Your task to perform on an android device: turn on improve location accuracy Image 0: 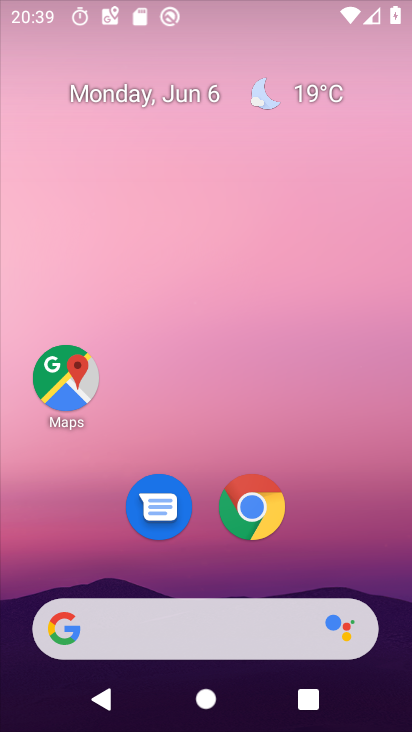
Step 0: press home button
Your task to perform on an android device: turn on improve location accuracy Image 1: 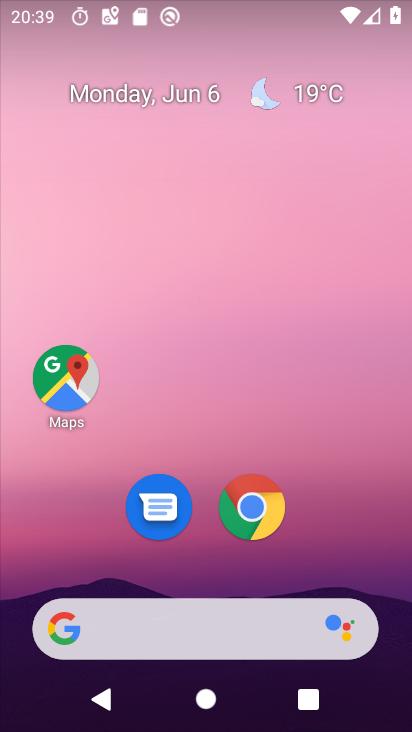
Step 1: drag from (409, 587) to (295, 32)
Your task to perform on an android device: turn on improve location accuracy Image 2: 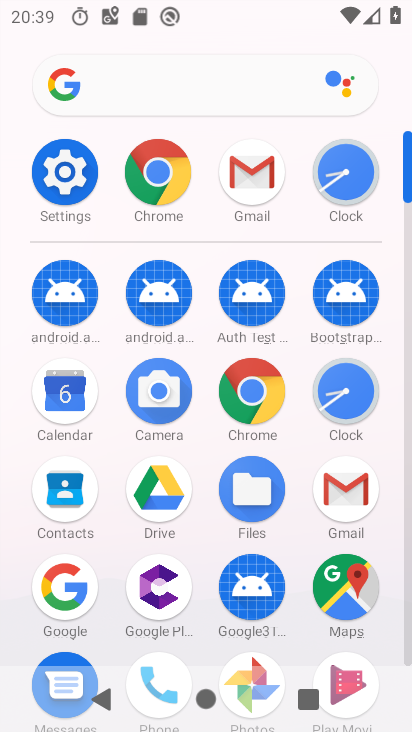
Step 2: drag from (183, 612) to (195, 471)
Your task to perform on an android device: turn on improve location accuracy Image 3: 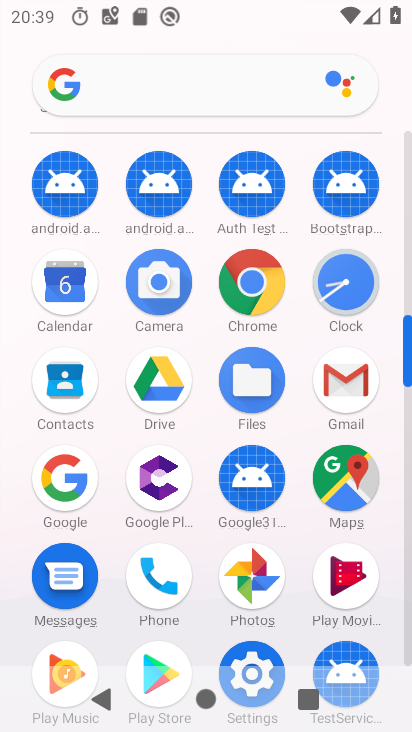
Step 3: click (253, 650)
Your task to perform on an android device: turn on improve location accuracy Image 4: 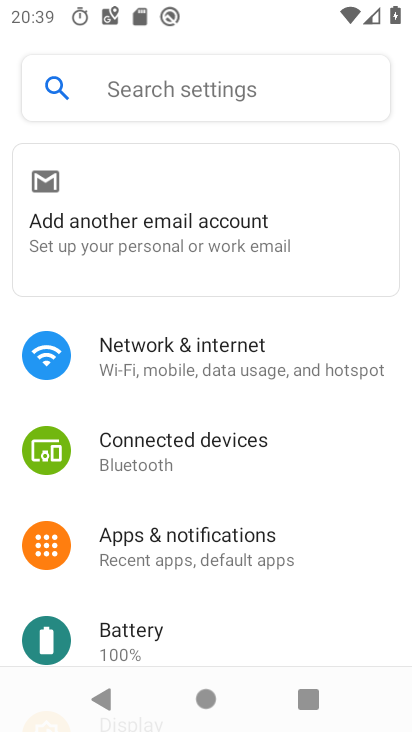
Step 4: drag from (241, 612) to (199, 0)
Your task to perform on an android device: turn on improve location accuracy Image 5: 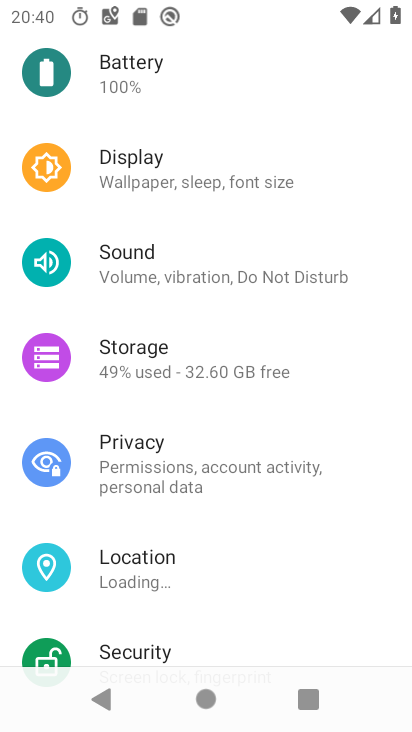
Step 5: click (141, 562)
Your task to perform on an android device: turn on improve location accuracy Image 6: 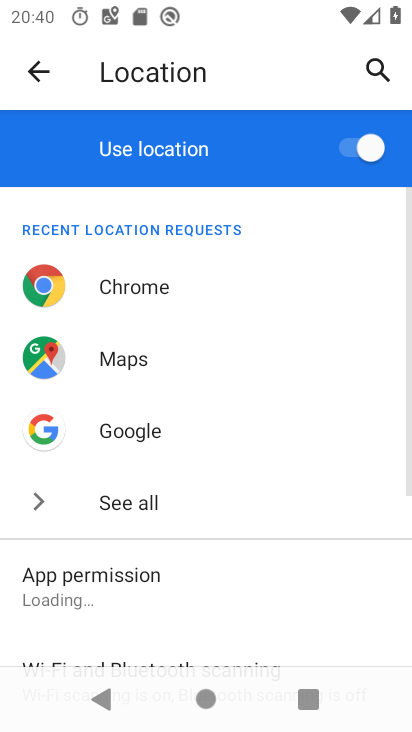
Step 6: drag from (150, 569) to (119, 312)
Your task to perform on an android device: turn on improve location accuracy Image 7: 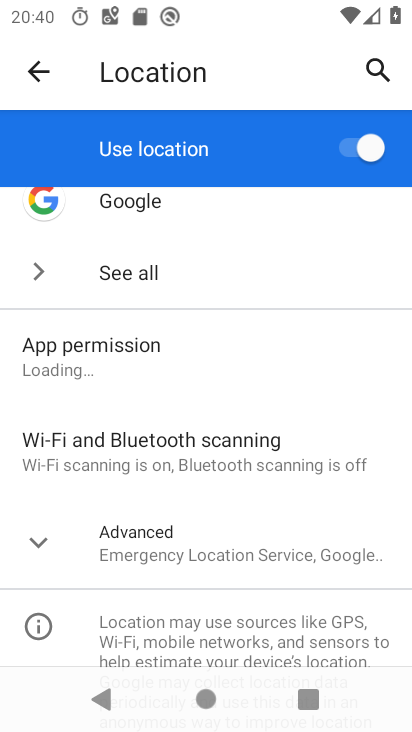
Step 7: click (179, 535)
Your task to perform on an android device: turn on improve location accuracy Image 8: 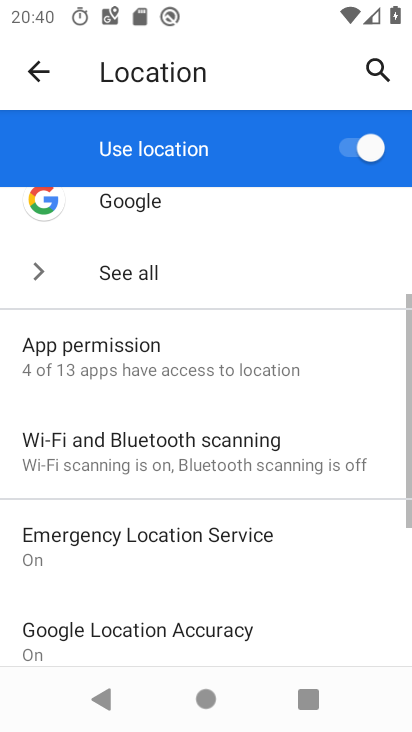
Step 8: click (172, 628)
Your task to perform on an android device: turn on improve location accuracy Image 9: 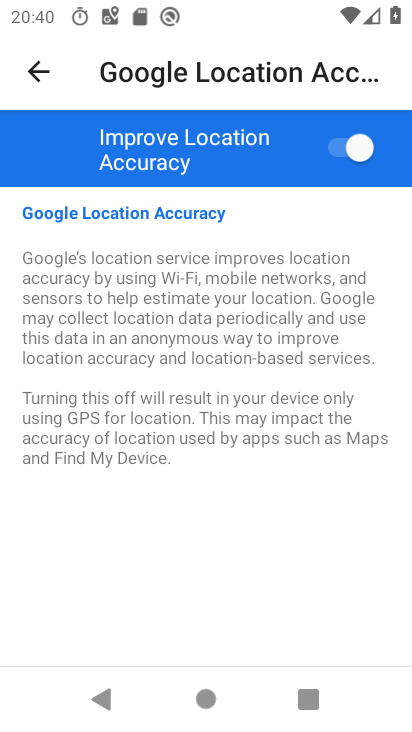
Step 9: task complete